Your task to perform on an android device: When is my next meeting? Image 0: 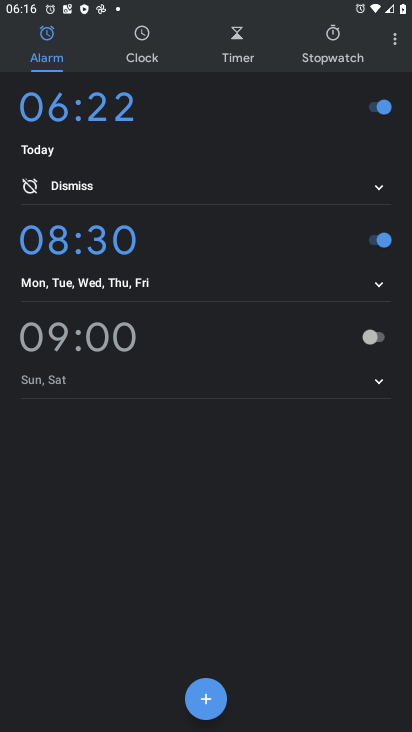
Step 0: press home button
Your task to perform on an android device: When is my next meeting? Image 1: 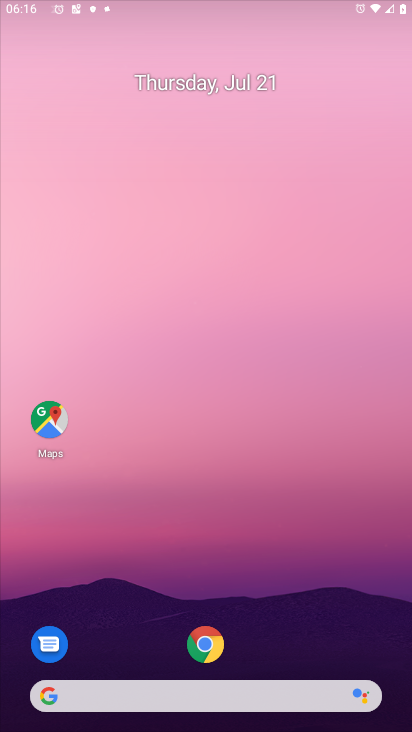
Step 1: drag from (314, 576) to (287, 108)
Your task to perform on an android device: When is my next meeting? Image 2: 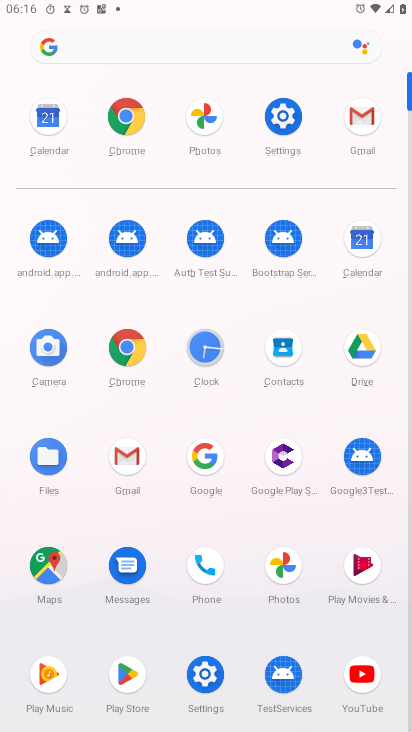
Step 2: click (371, 233)
Your task to perform on an android device: When is my next meeting? Image 3: 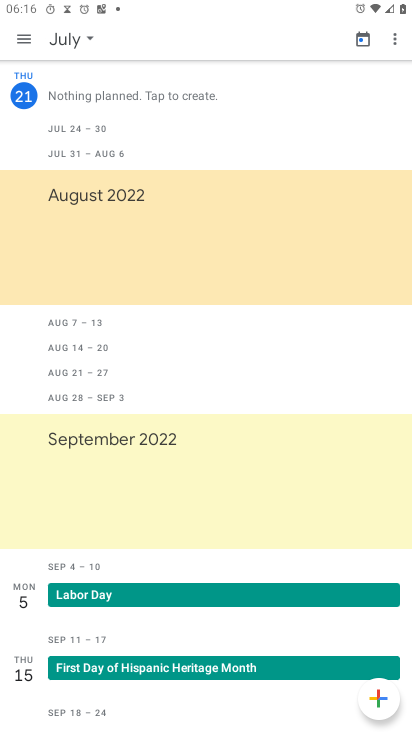
Step 3: click (26, 36)
Your task to perform on an android device: When is my next meeting? Image 4: 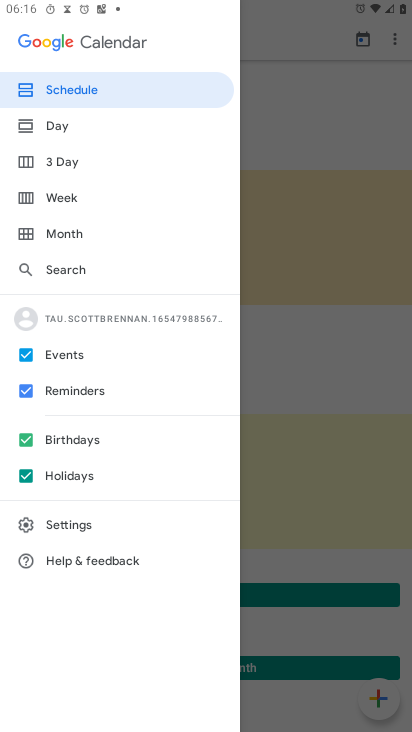
Step 4: click (59, 92)
Your task to perform on an android device: When is my next meeting? Image 5: 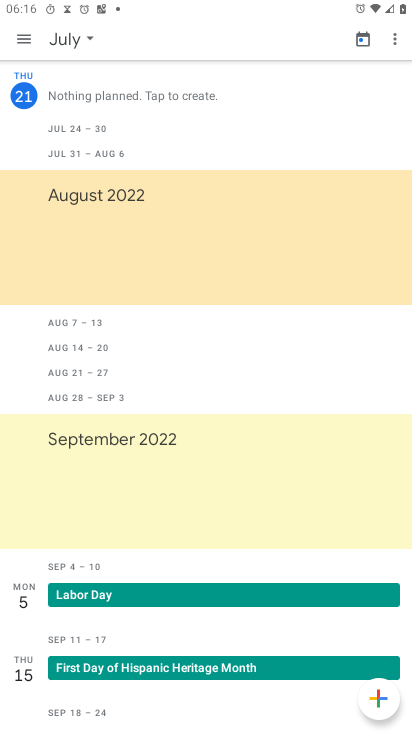
Step 5: task complete